Your task to perform on an android device: Open notification settings Image 0: 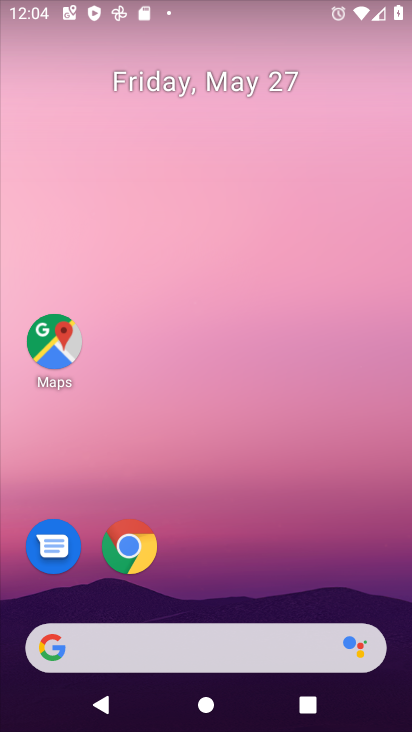
Step 0: drag from (245, 579) to (248, 162)
Your task to perform on an android device: Open notification settings Image 1: 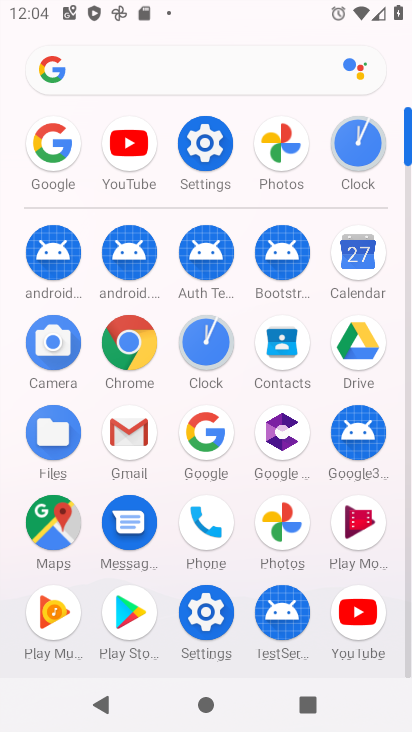
Step 1: click (212, 619)
Your task to perform on an android device: Open notification settings Image 2: 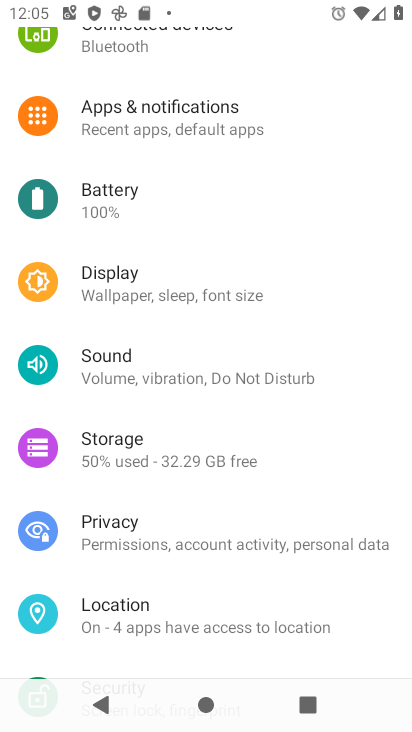
Step 2: click (184, 113)
Your task to perform on an android device: Open notification settings Image 3: 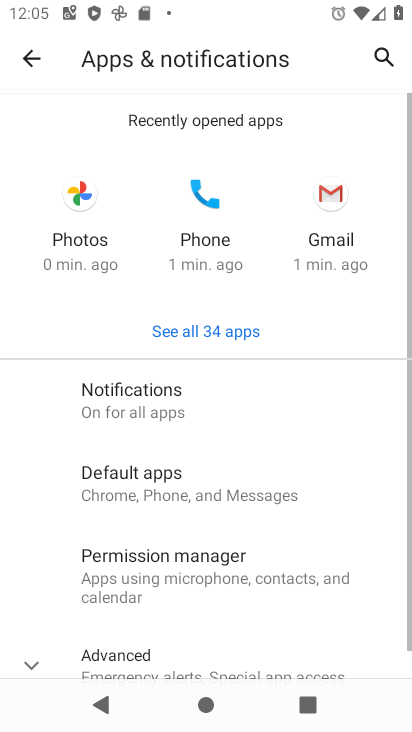
Step 3: click (192, 386)
Your task to perform on an android device: Open notification settings Image 4: 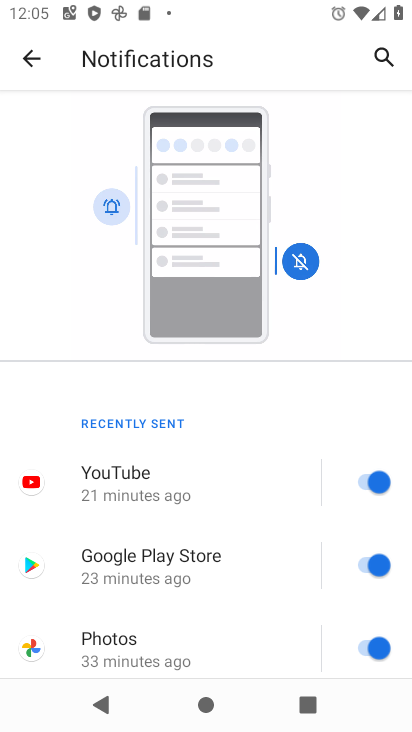
Step 4: task complete